Your task to perform on an android device: install app "Grab" Image 0: 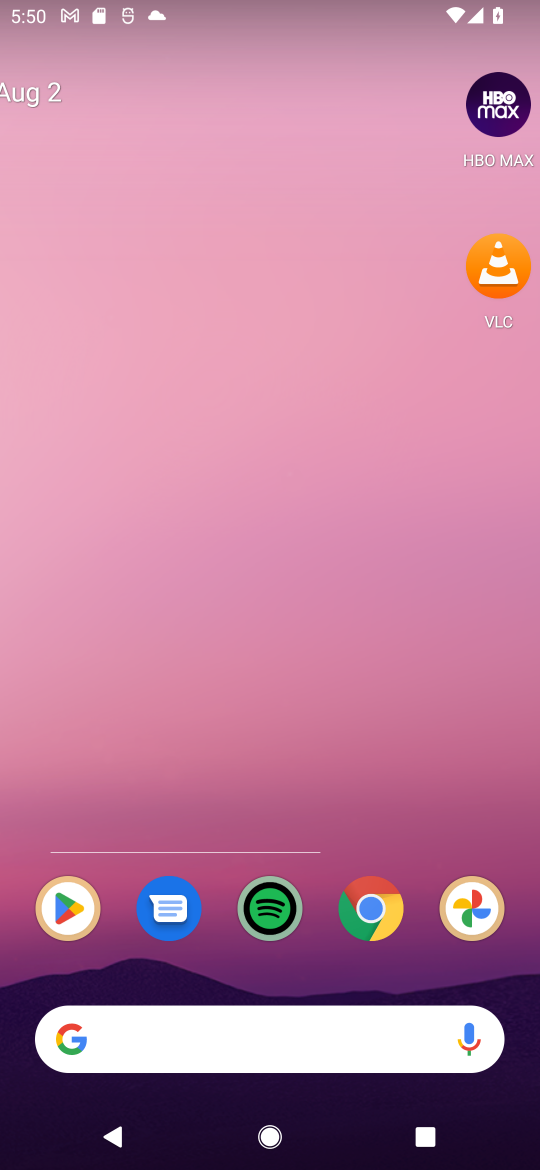
Step 0: press home button
Your task to perform on an android device: install app "Grab" Image 1: 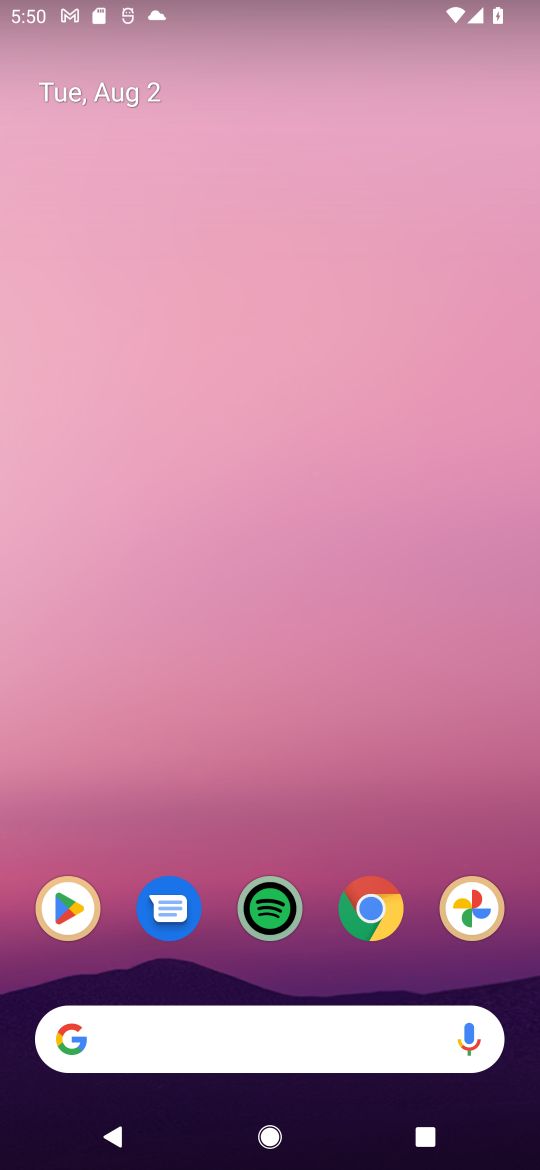
Step 1: click (58, 900)
Your task to perform on an android device: install app "Grab" Image 2: 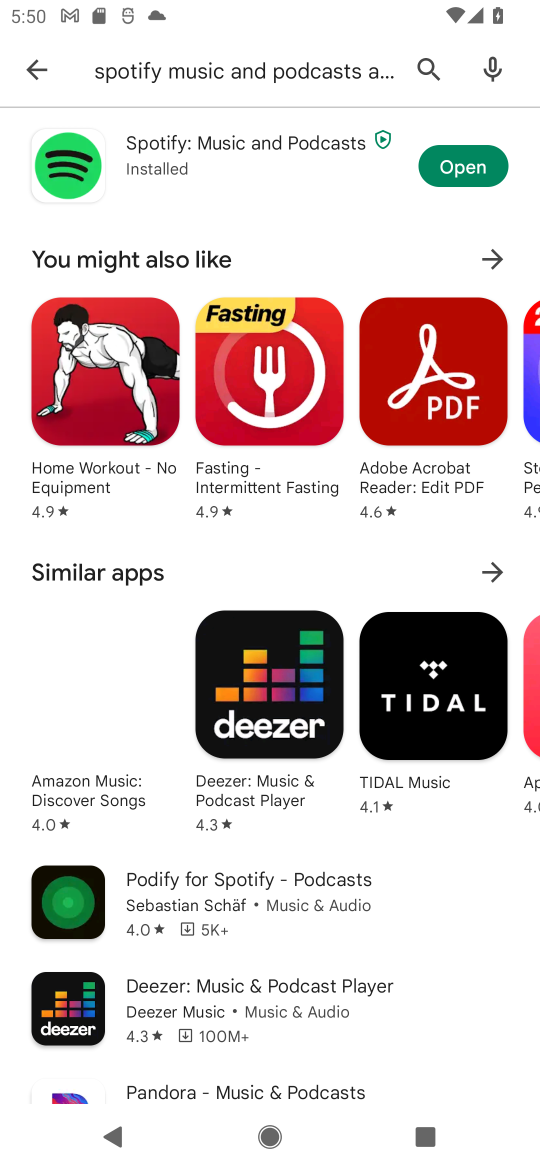
Step 2: click (421, 66)
Your task to perform on an android device: install app "Grab" Image 3: 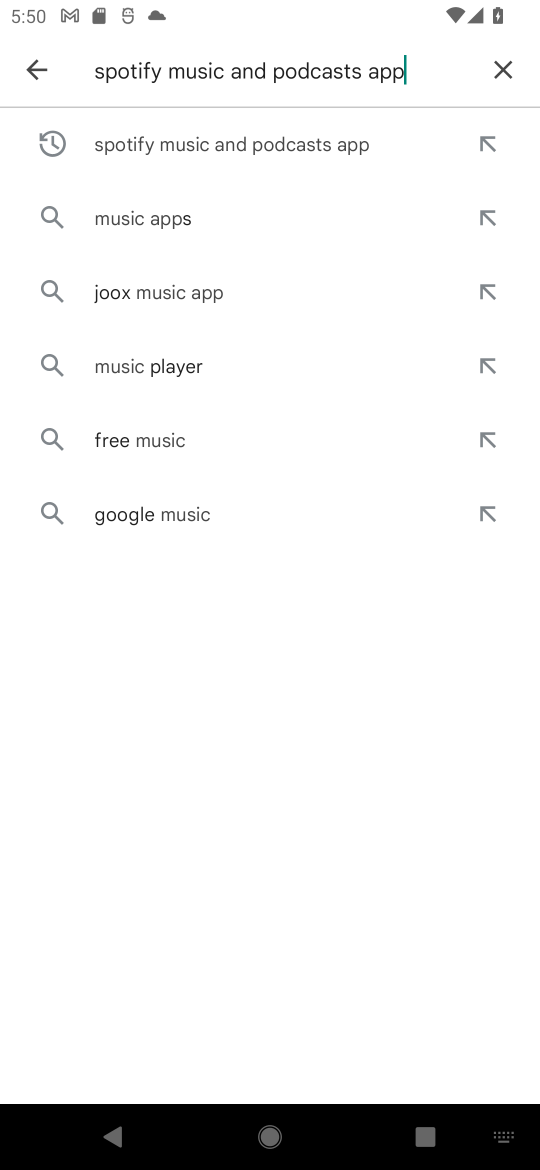
Step 3: click (502, 69)
Your task to perform on an android device: install app "Grab" Image 4: 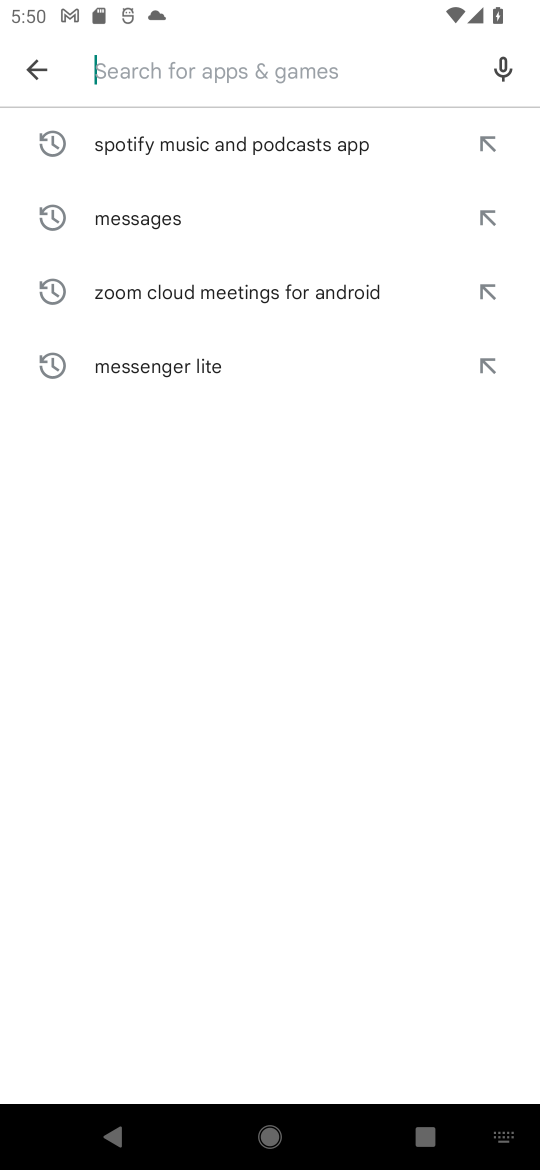
Step 4: type "grab"
Your task to perform on an android device: install app "Grab" Image 5: 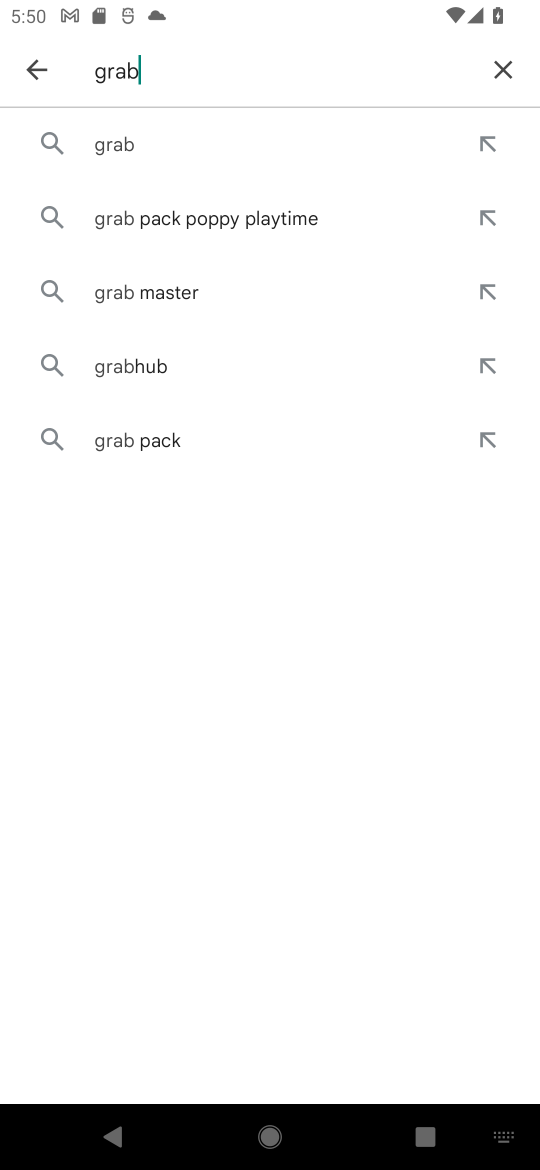
Step 5: click (129, 143)
Your task to perform on an android device: install app "Grab" Image 6: 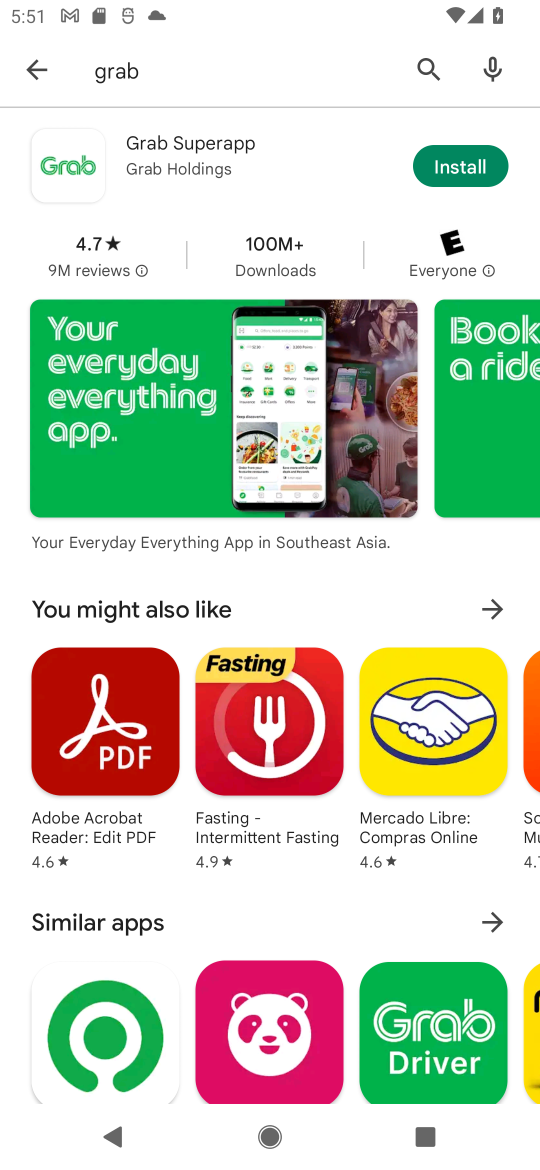
Step 6: click (453, 160)
Your task to perform on an android device: install app "Grab" Image 7: 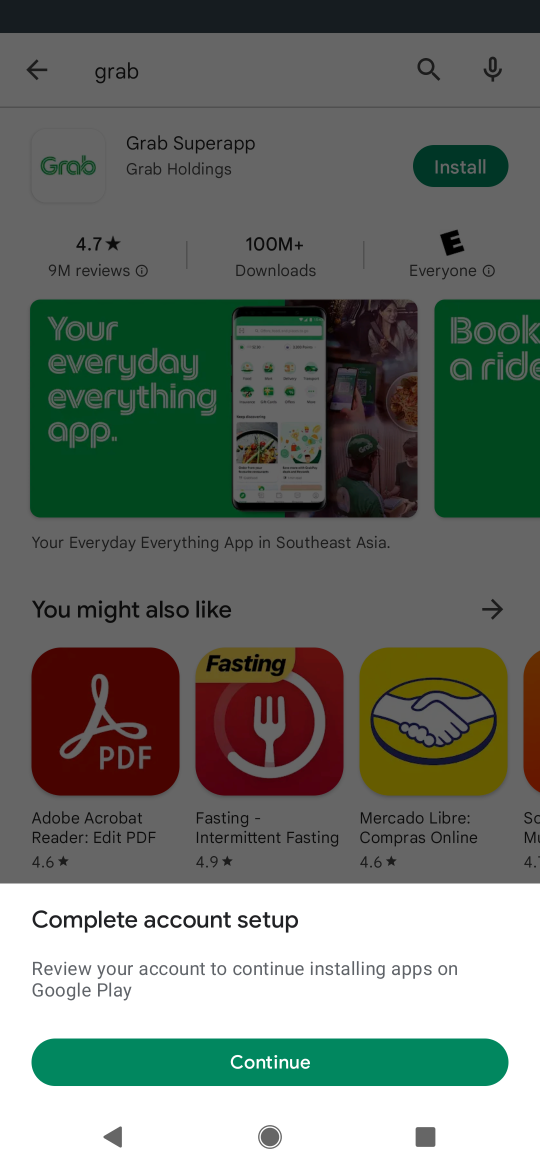
Step 7: click (266, 1060)
Your task to perform on an android device: install app "Grab" Image 8: 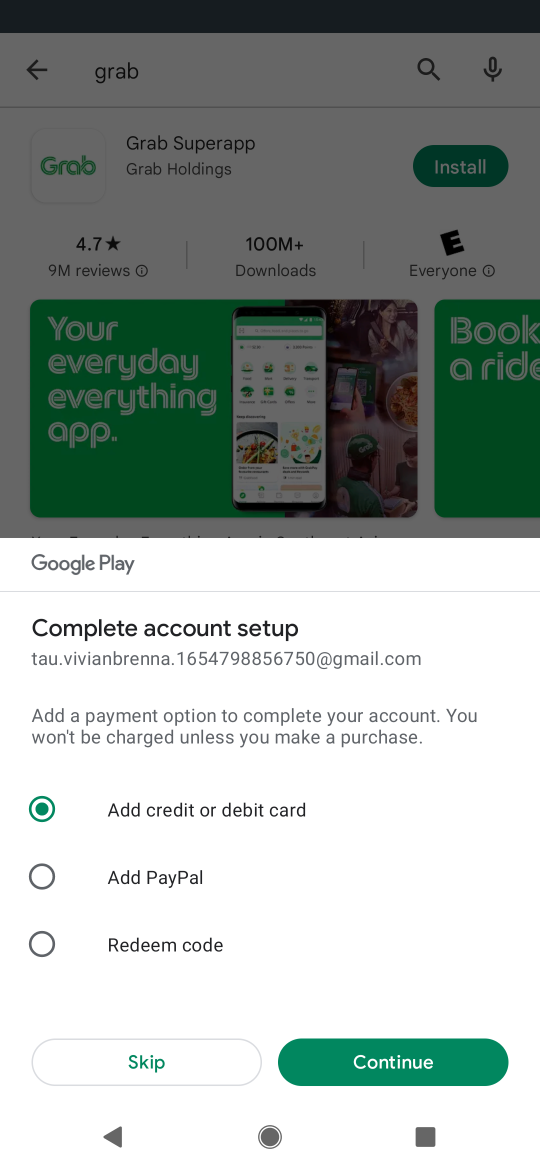
Step 8: click (141, 1055)
Your task to perform on an android device: install app "Grab" Image 9: 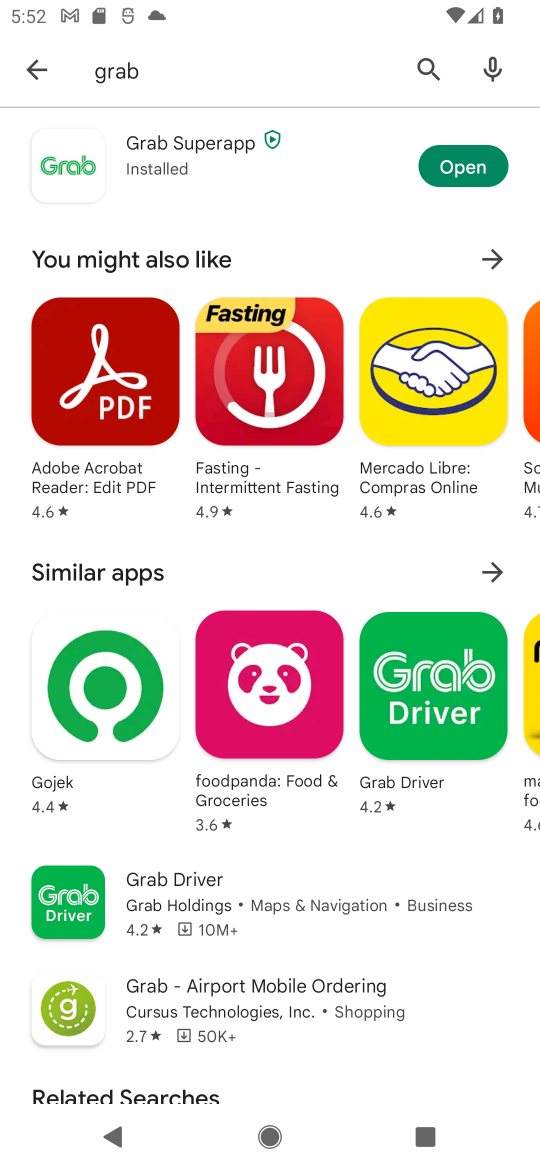
Step 9: click (480, 159)
Your task to perform on an android device: install app "Grab" Image 10: 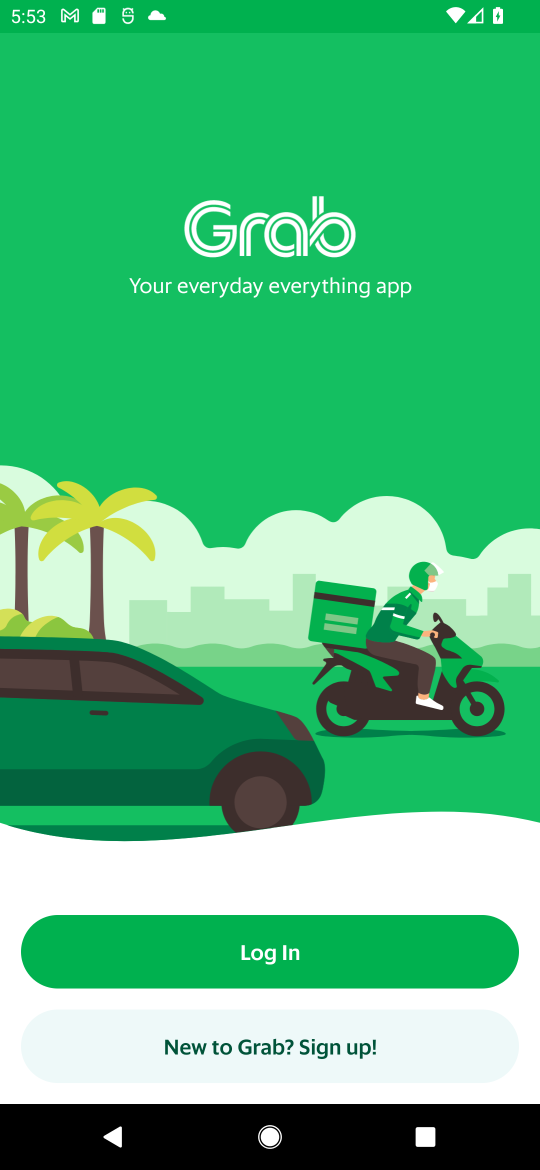
Step 10: click (267, 960)
Your task to perform on an android device: install app "Grab" Image 11: 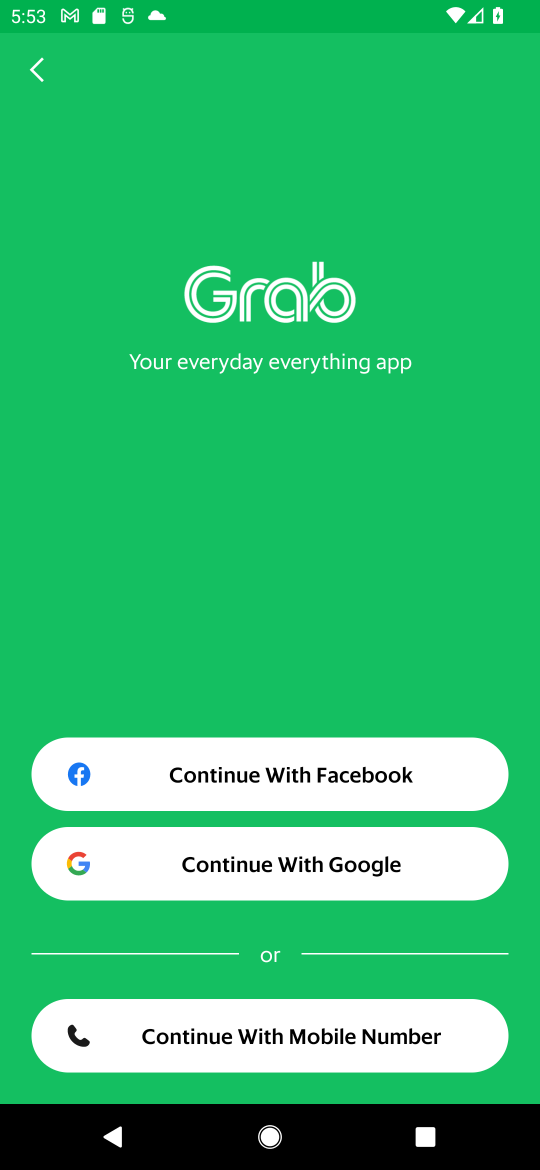
Step 11: click (295, 870)
Your task to perform on an android device: install app "Grab" Image 12: 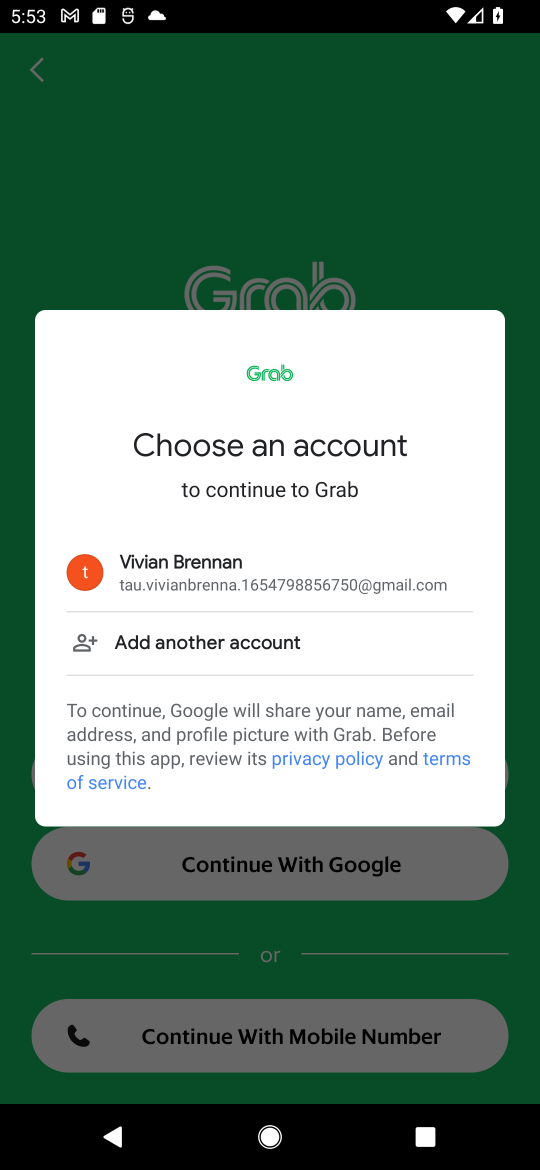
Step 12: click (177, 570)
Your task to perform on an android device: install app "Grab" Image 13: 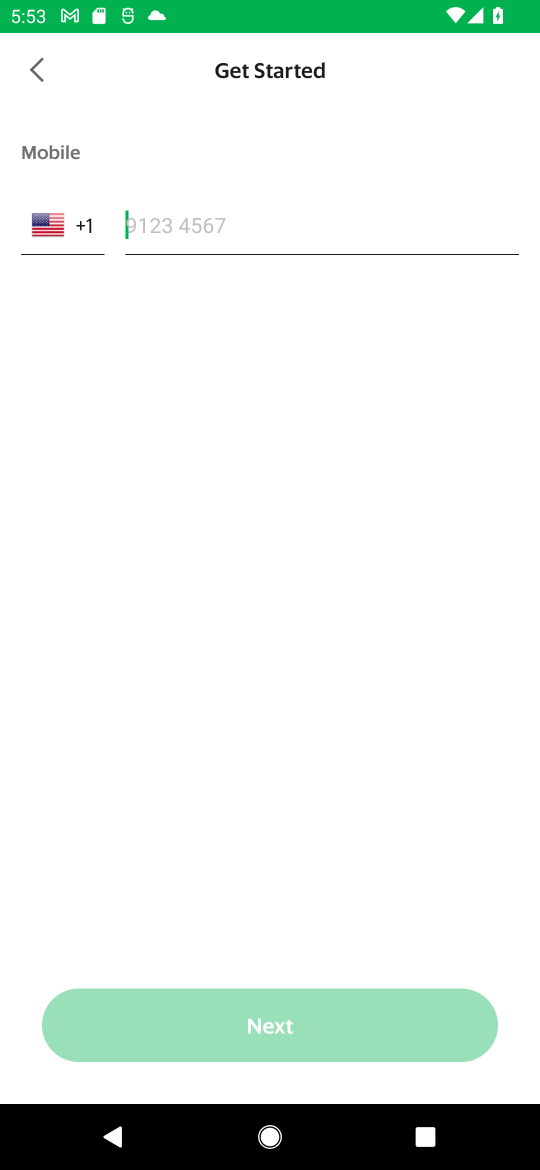
Step 13: task complete